Your task to perform on an android device: open device folders in google photos Image 0: 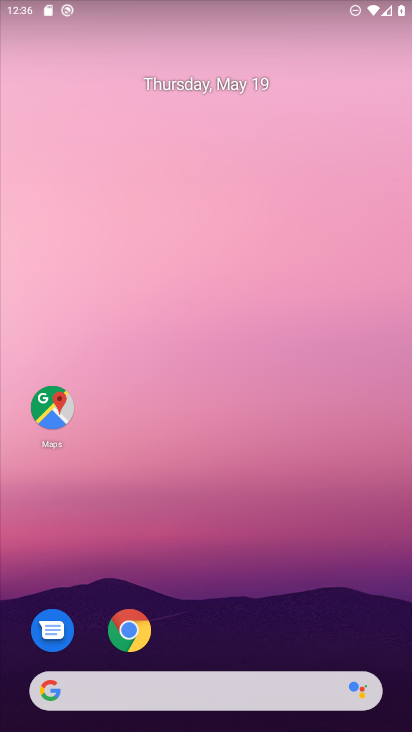
Step 0: drag from (232, 631) to (358, 79)
Your task to perform on an android device: open device folders in google photos Image 1: 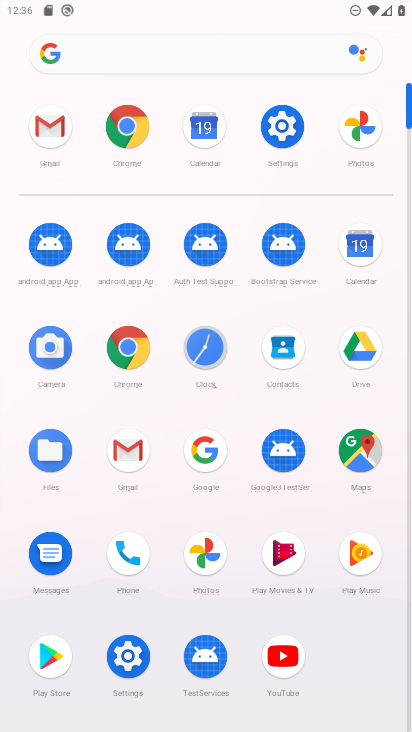
Step 1: click (204, 553)
Your task to perform on an android device: open device folders in google photos Image 2: 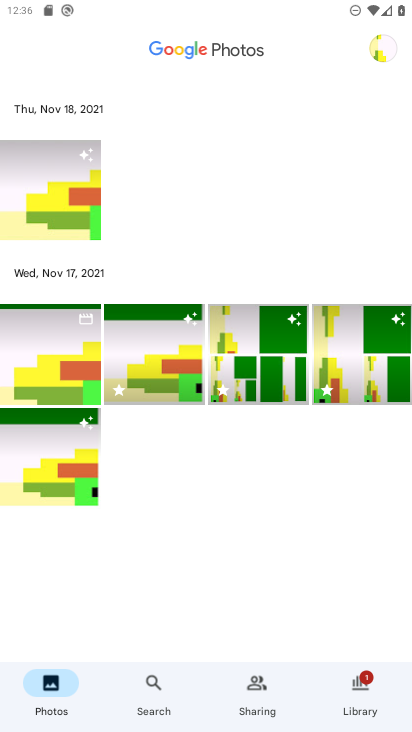
Step 2: click (156, 671)
Your task to perform on an android device: open device folders in google photos Image 3: 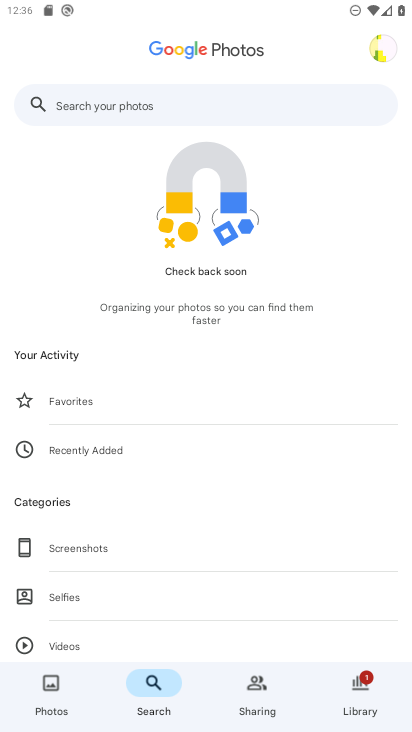
Step 3: click (118, 109)
Your task to perform on an android device: open device folders in google photos Image 4: 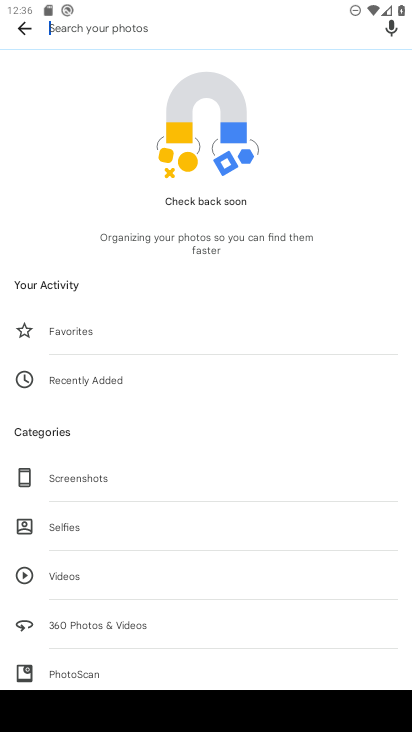
Step 4: type "device folder"
Your task to perform on an android device: open device folders in google photos Image 5: 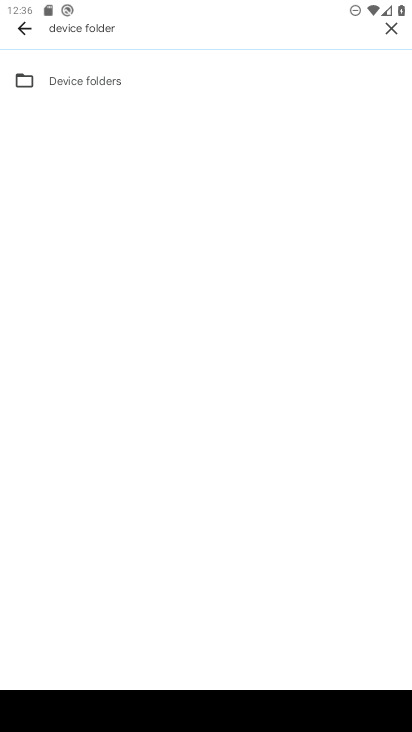
Step 5: click (133, 73)
Your task to perform on an android device: open device folders in google photos Image 6: 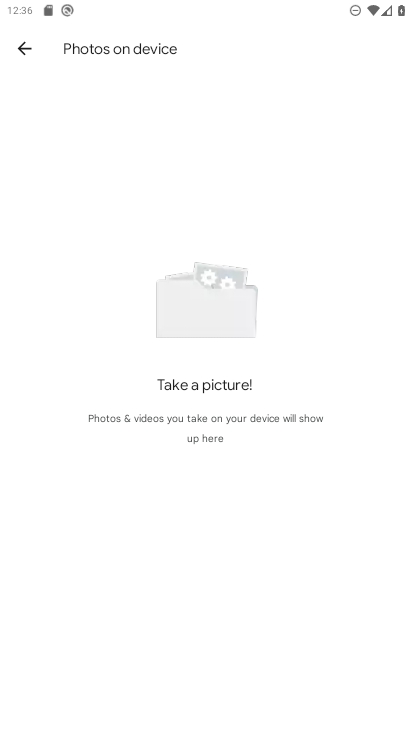
Step 6: task complete